Your task to perform on an android device: Open Google Chrome Image 0: 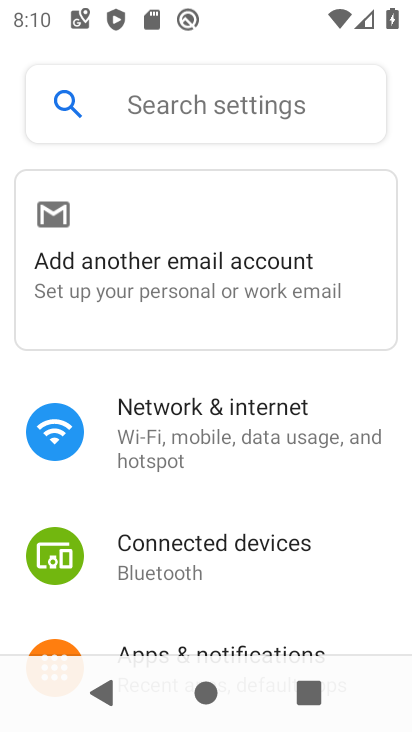
Step 0: press home button
Your task to perform on an android device: Open Google Chrome Image 1: 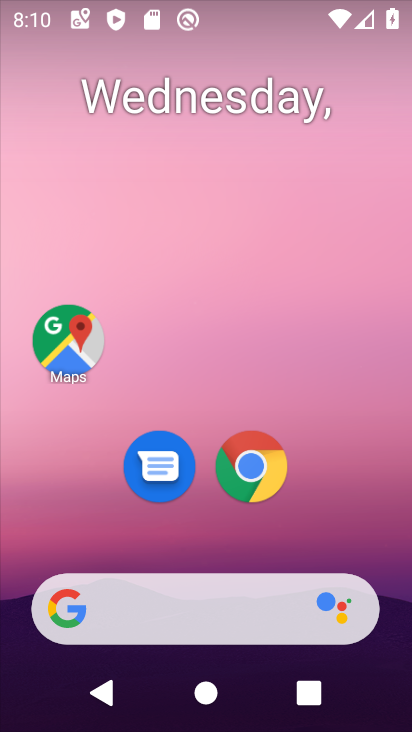
Step 1: drag from (308, 540) to (239, 49)
Your task to perform on an android device: Open Google Chrome Image 2: 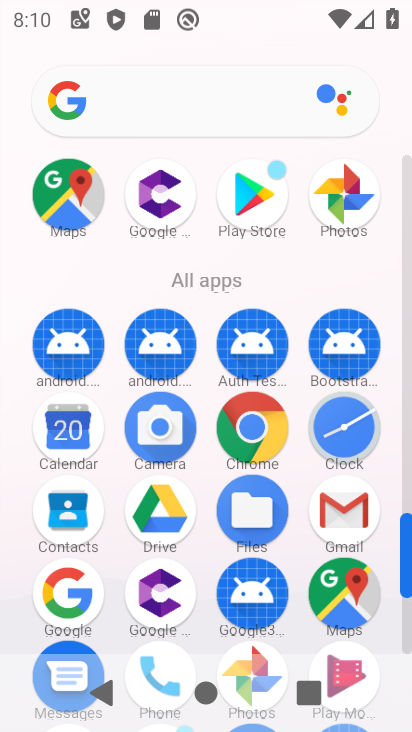
Step 2: click (237, 427)
Your task to perform on an android device: Open Google Chrome Image 3: 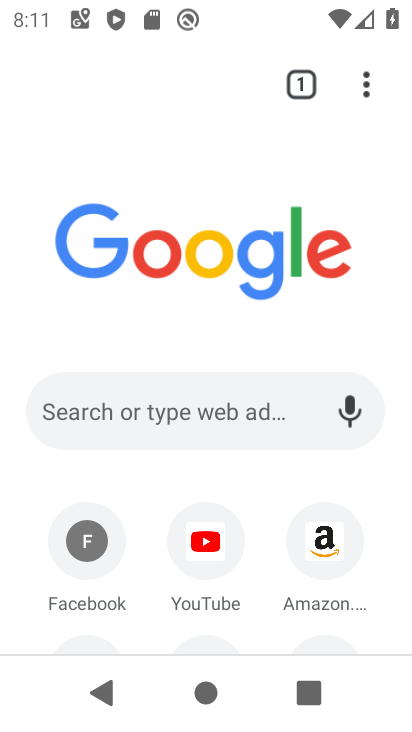
Step 3: task complete